Your task to perform on an android device: turn pop-ups on in chrome Image 0: 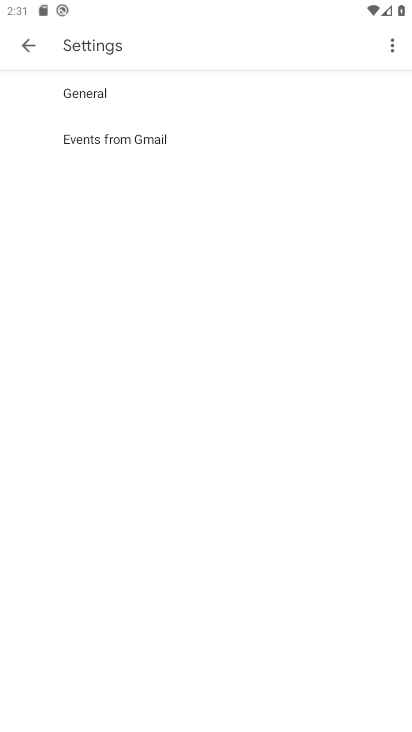
Step 0: press home button
Your task to perform on an android device: turn pop-ups on in chrome Image 1: 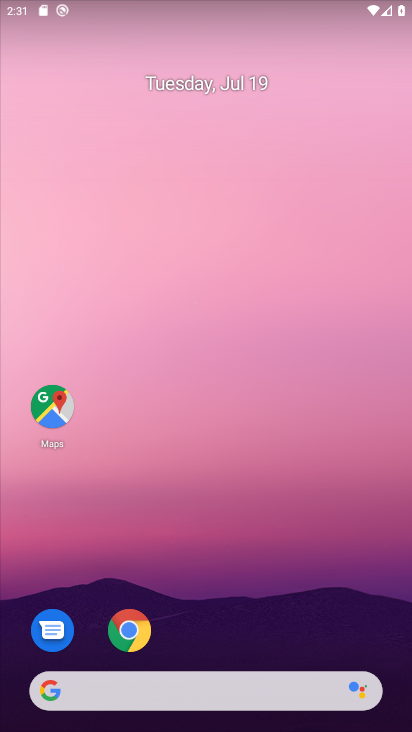
Step 1: click (129, 628)
Your task to perform on an android device: turn pop-ups on in chrome Image 2: 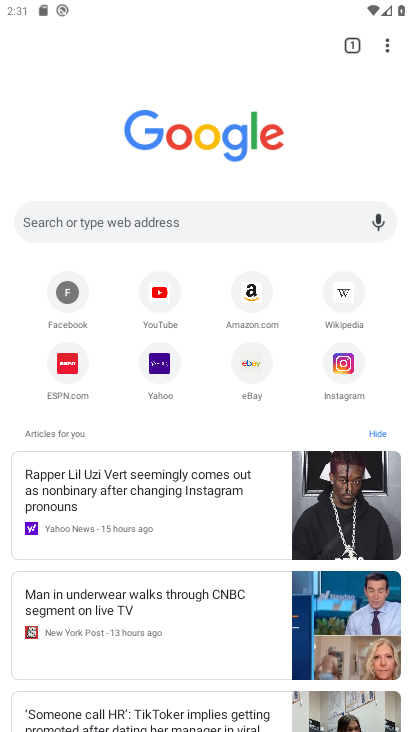
Step 2: click (388, 43)
Your task to perform on an android device: turn pop-ups on in chrome Image 3: 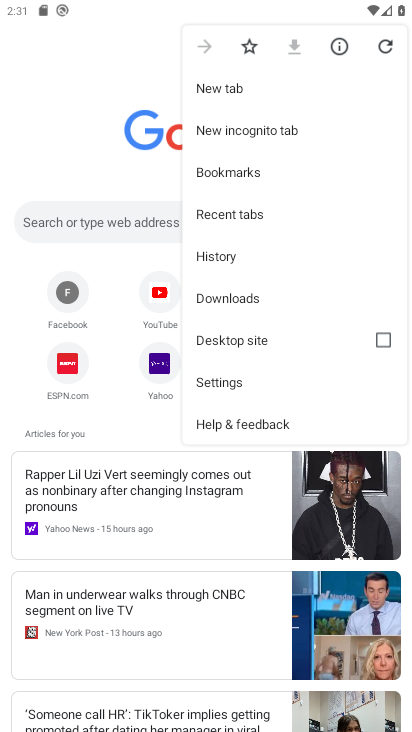
Step 3: click (216, 379)
Your task to perform on an android device: turn pop-ups on in chrome Image 4: 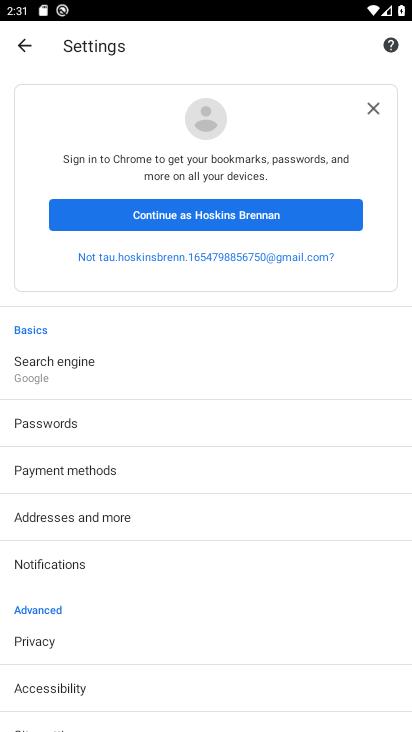
Step 4: drag from (218, 608) to (208, 255)
Your task to perform on an android device: turn pop-ups on in chrome Image 5: 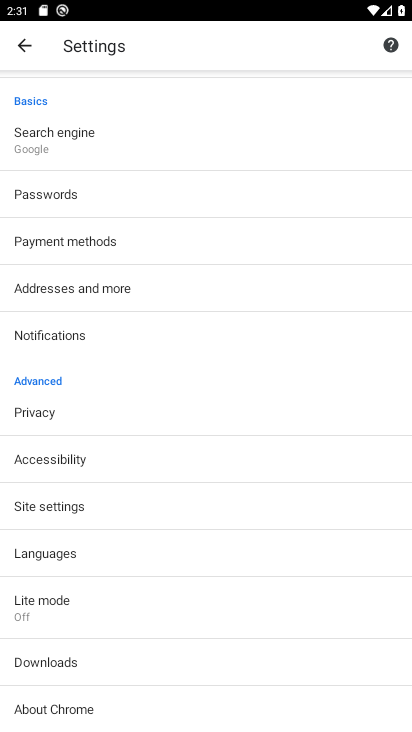
Step 5: click (39, 498)
Your task to perform on an android device: turn pop-ups on in chrome Image 6: 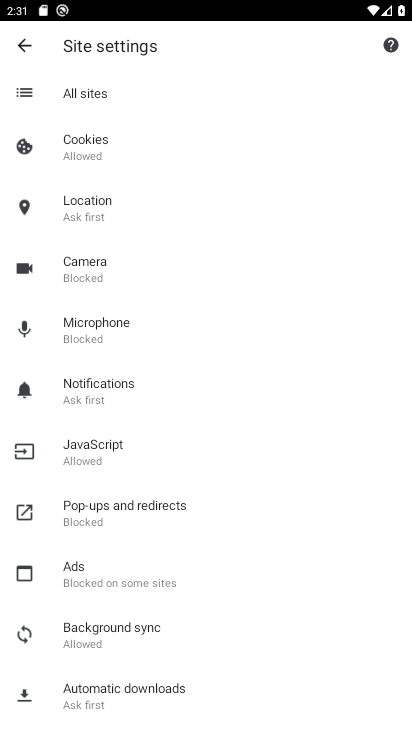
Step 6: click (120, 498)
Your task to perform on an android device: turn pop-ups on in chrome Image 7: 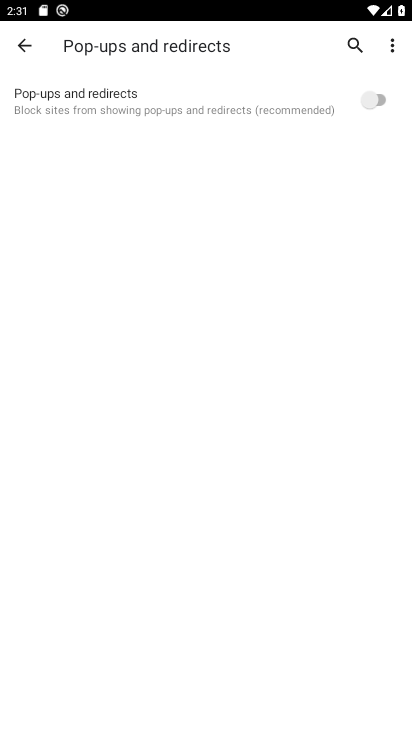
Step 7: click (369, 96)
Your task to perform on an android device: turn pop-ups on in chrome Image 8: 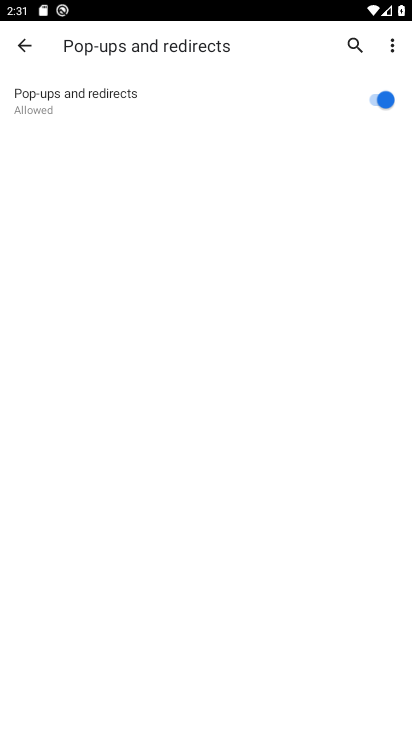
Step 8: task complete